Your task to perform on an android device: check data usage Image 0: 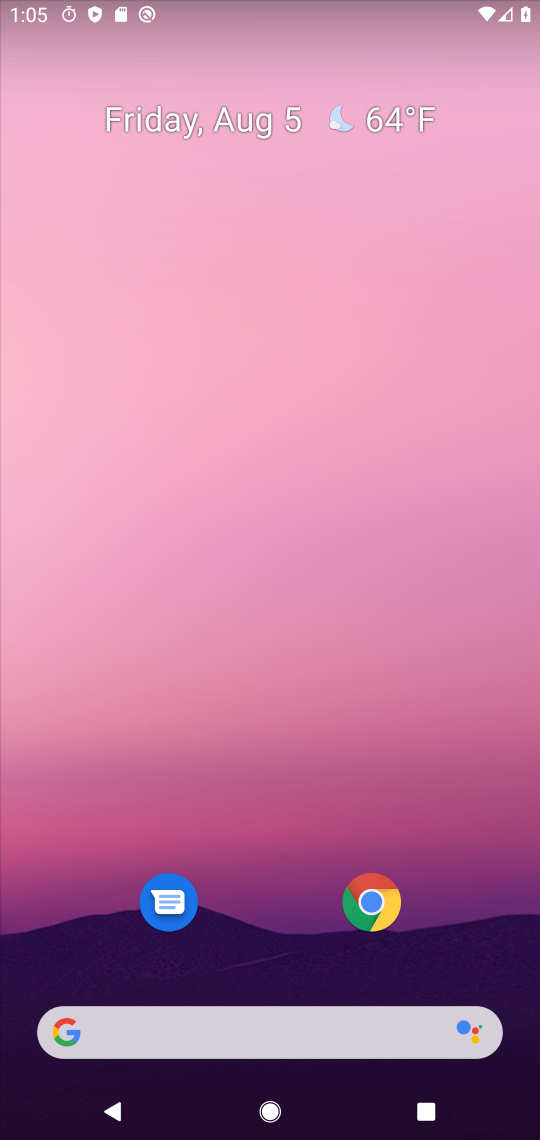
Step 0: press home button
Your task to perform on an android device: check data usage Image 1: 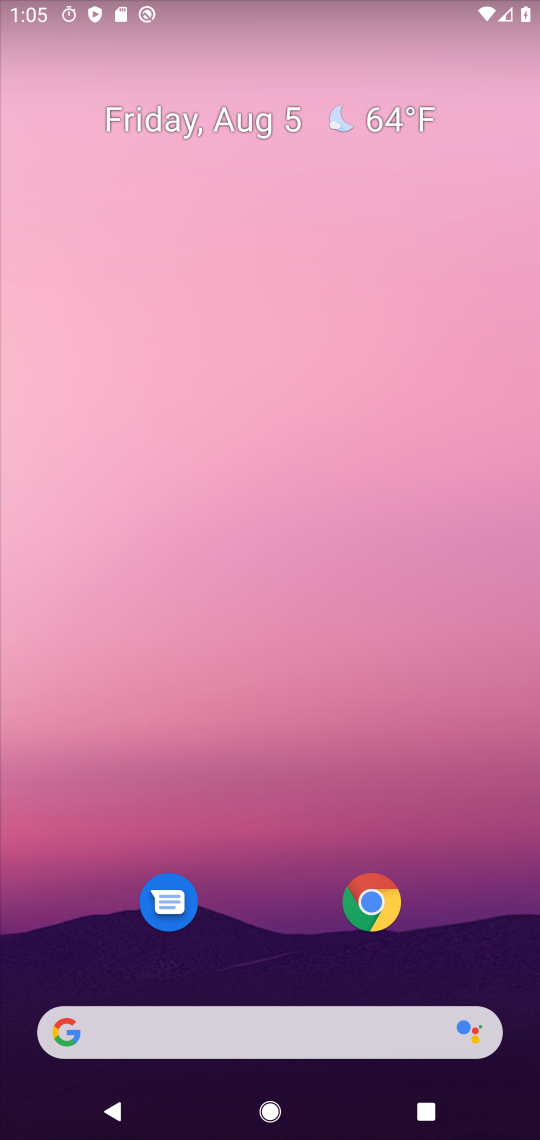
Step 1: click (344, 369)
Your task to perform on an android device: check data usage Image 2: 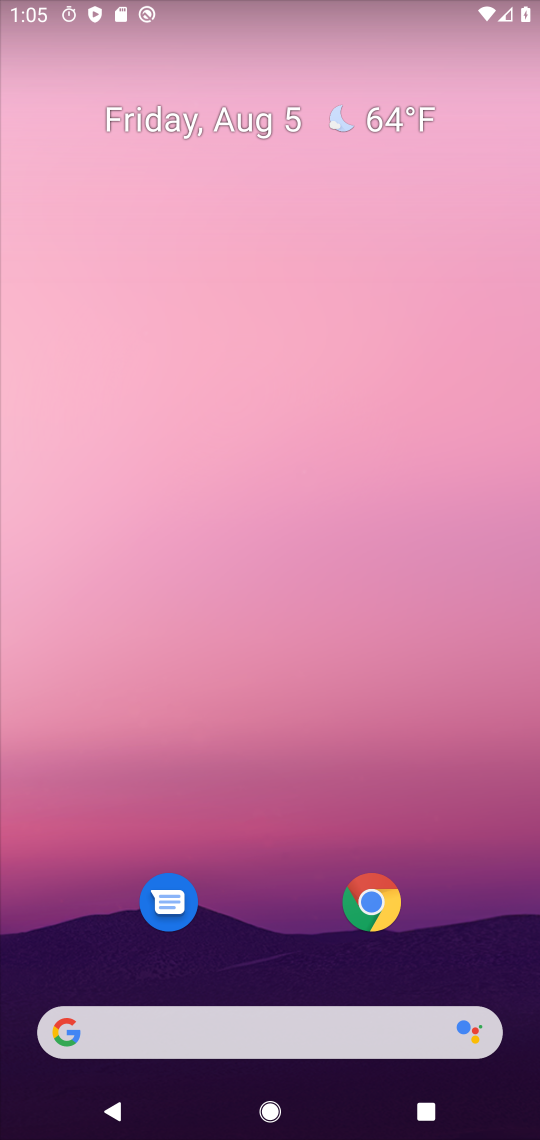
Step 2: drag from (228, 1077) to (303, 105)
Your task to perform on an android device: check data usage Image 3: 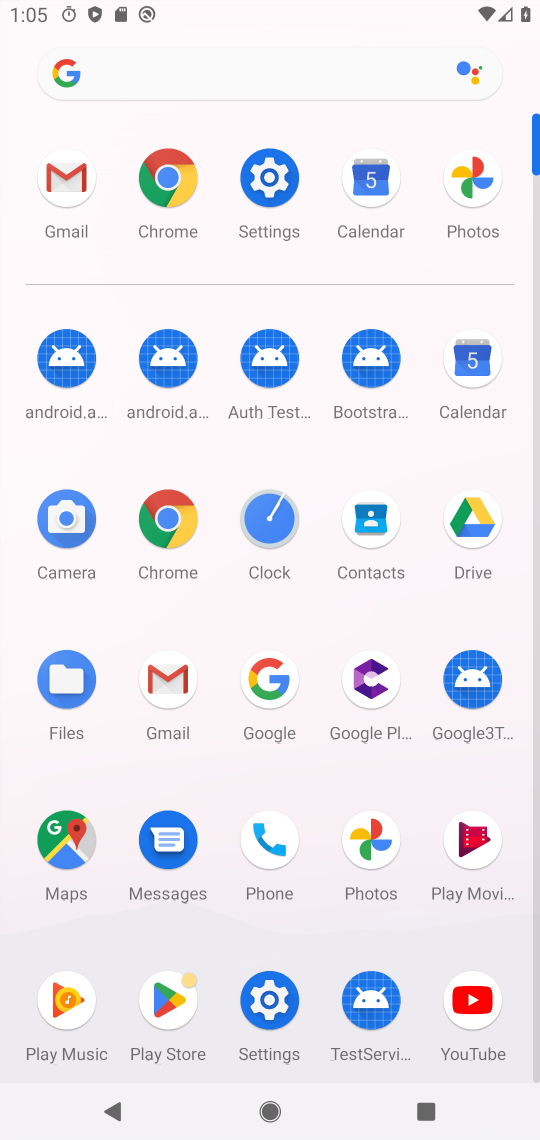
Step 3: click (281, 165)
Your task to perform on an android device: check data usage Image 4: 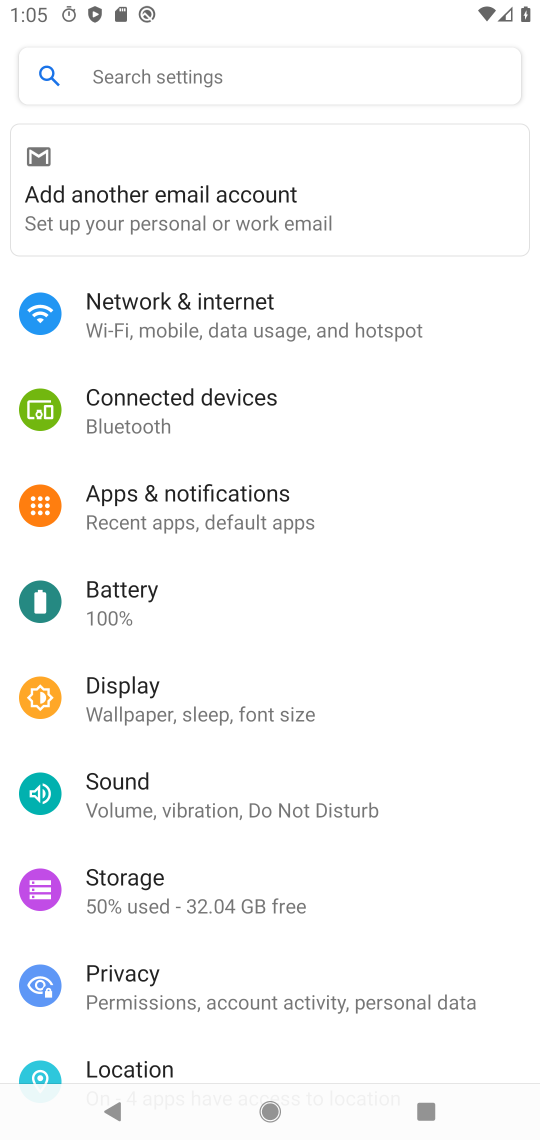
Step 4: click (210, 70)
Your task to perform on an android device: check data usage Image 5: 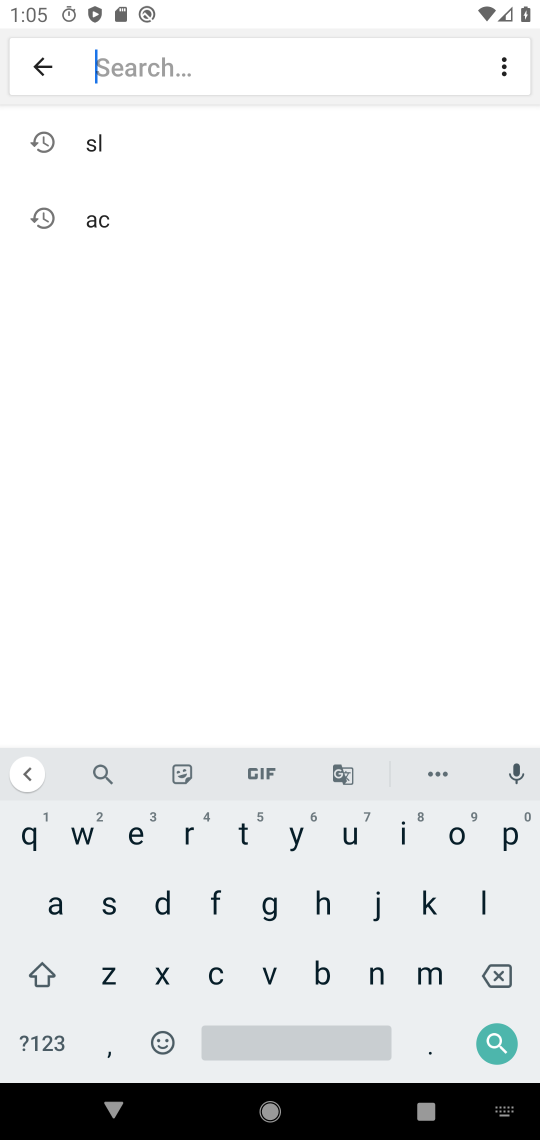
Step 5: click (157, 896)
Your task to perform on an android device: check data usage Image 6: 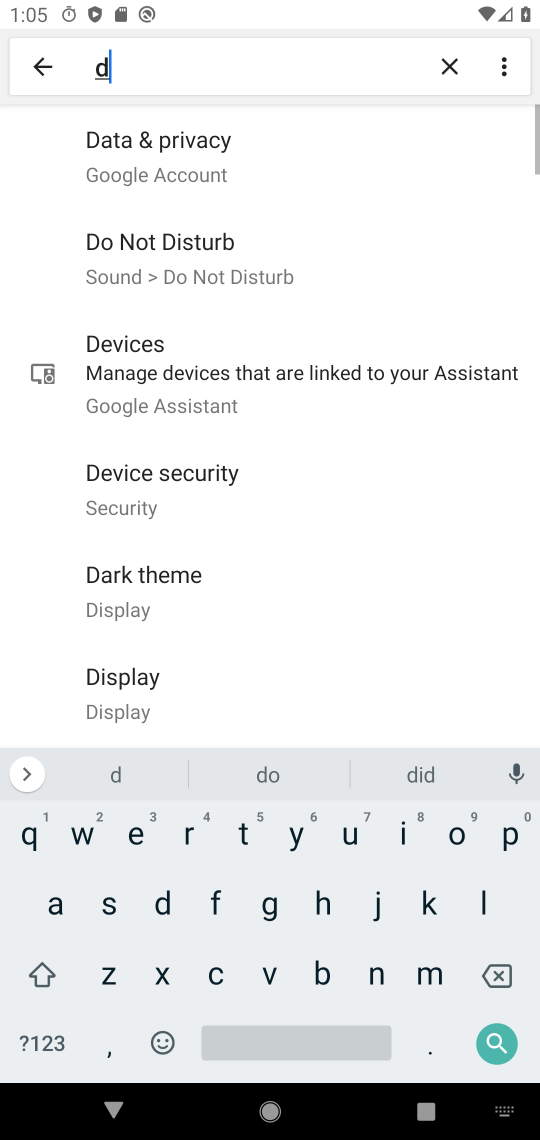
Step 6: click (48, 898)
Your task to perform on an android device: check data usage Image 7: 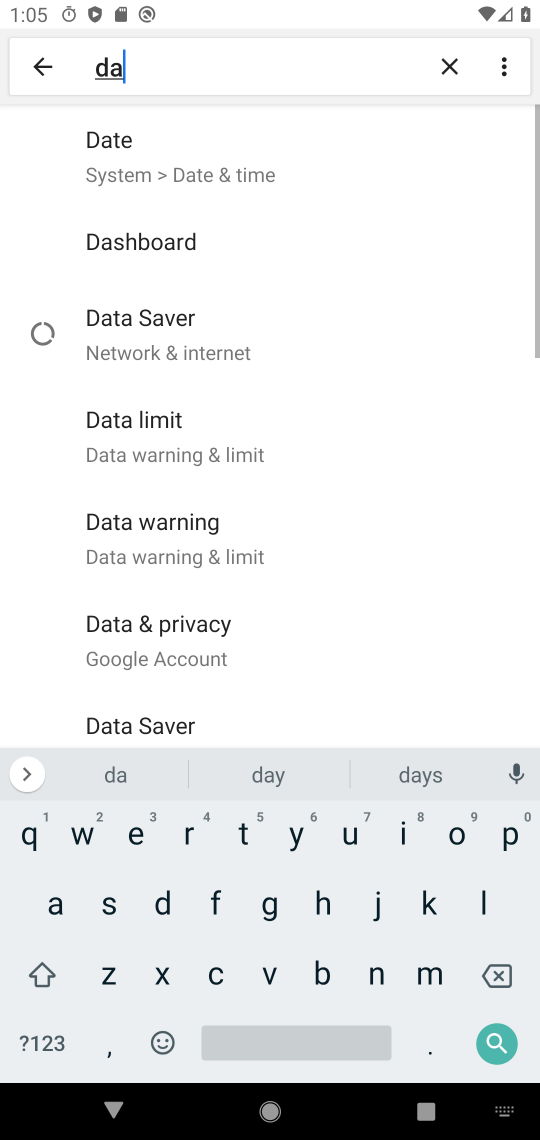
Step 7: click (240, 833)
Your task to perform on an android device: check data usage Image 8: 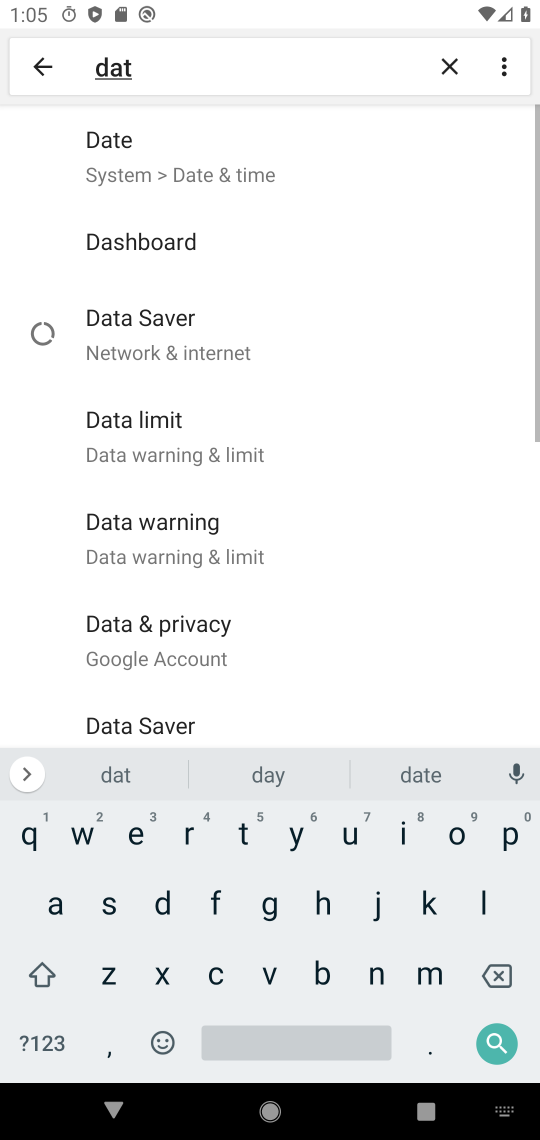
Step 8: click (44, 904)
Your task to perform on an android device: check data usage Image 9: 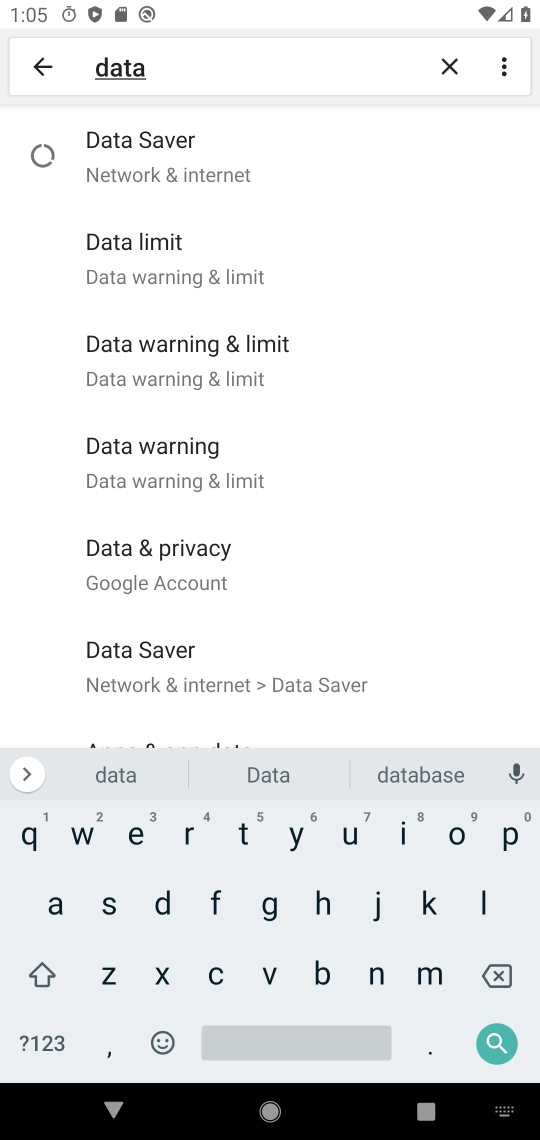
Step 9: click (262, 1038)
Your task to perform on an android device: check data usage Image 10: 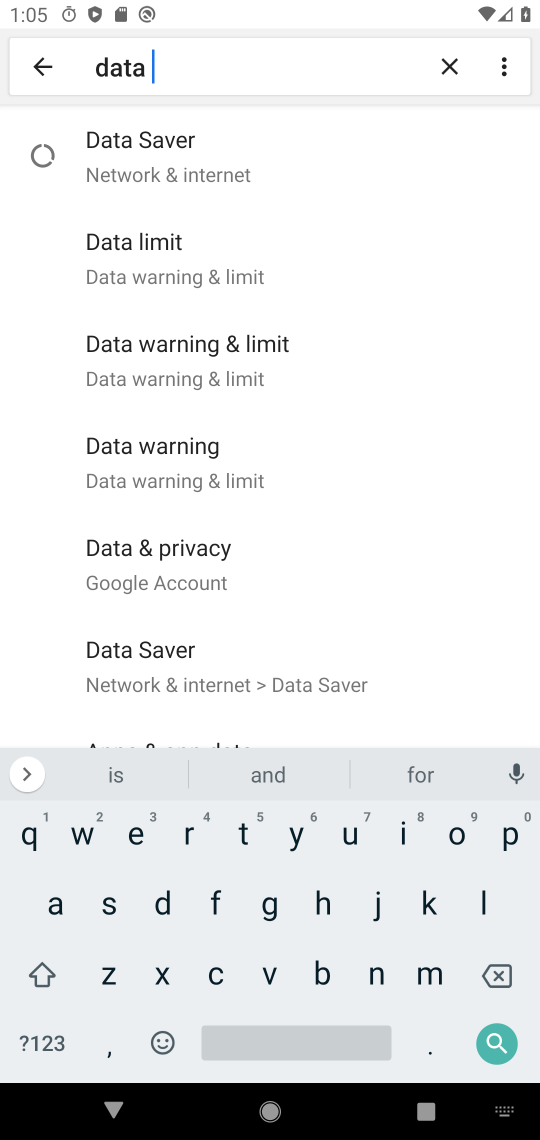
Step 10: click (352, 824)
Your task to perform on an android device: check data usage Image 11: 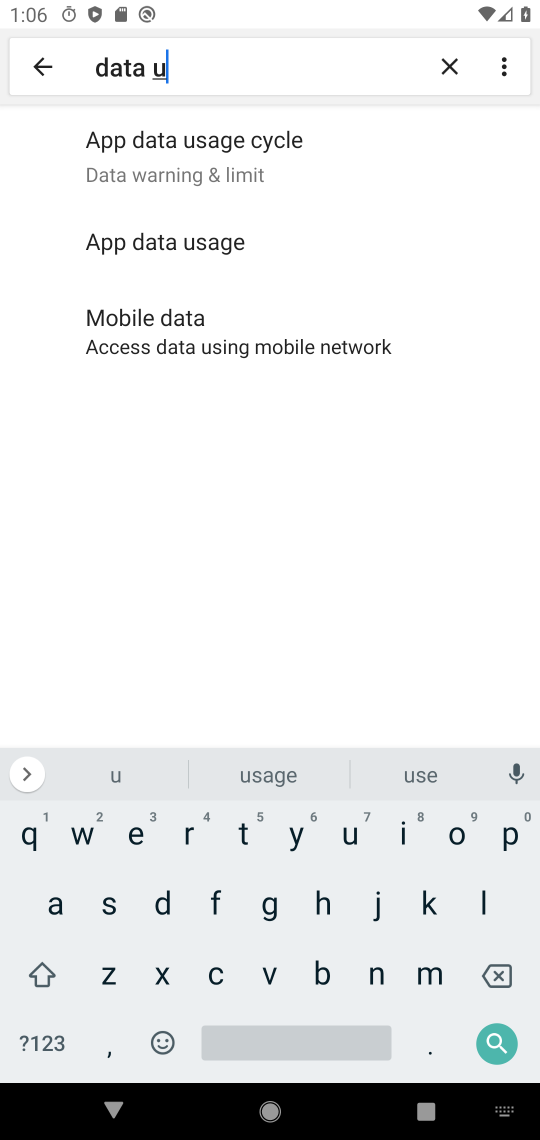
Step 11: click (183, 253)
Your task to perform on an android device: check data usage Image 12: 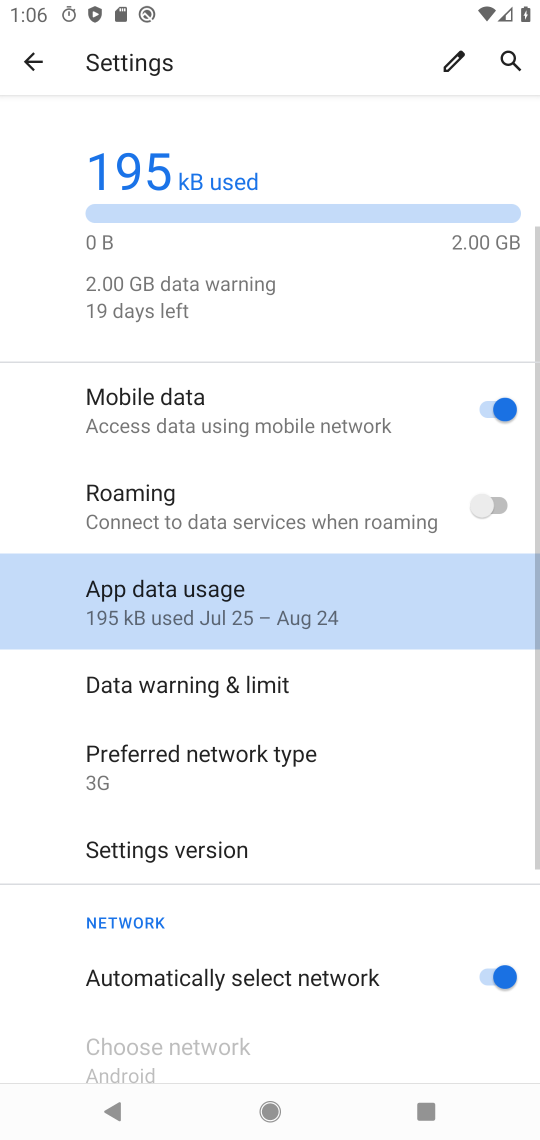
Step 12: click (141, 619)
Your task to perform on an android device: check data usage Image 13: 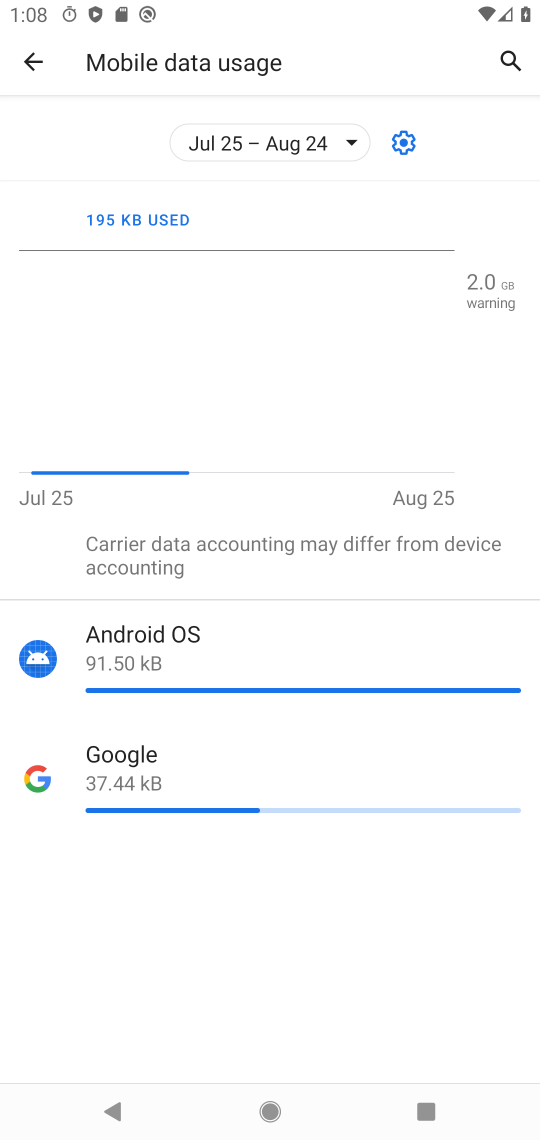
Step 13: task complete